Your task to perform on an android device: open app "NewsBreak: Local News & Alerts" Image 0: 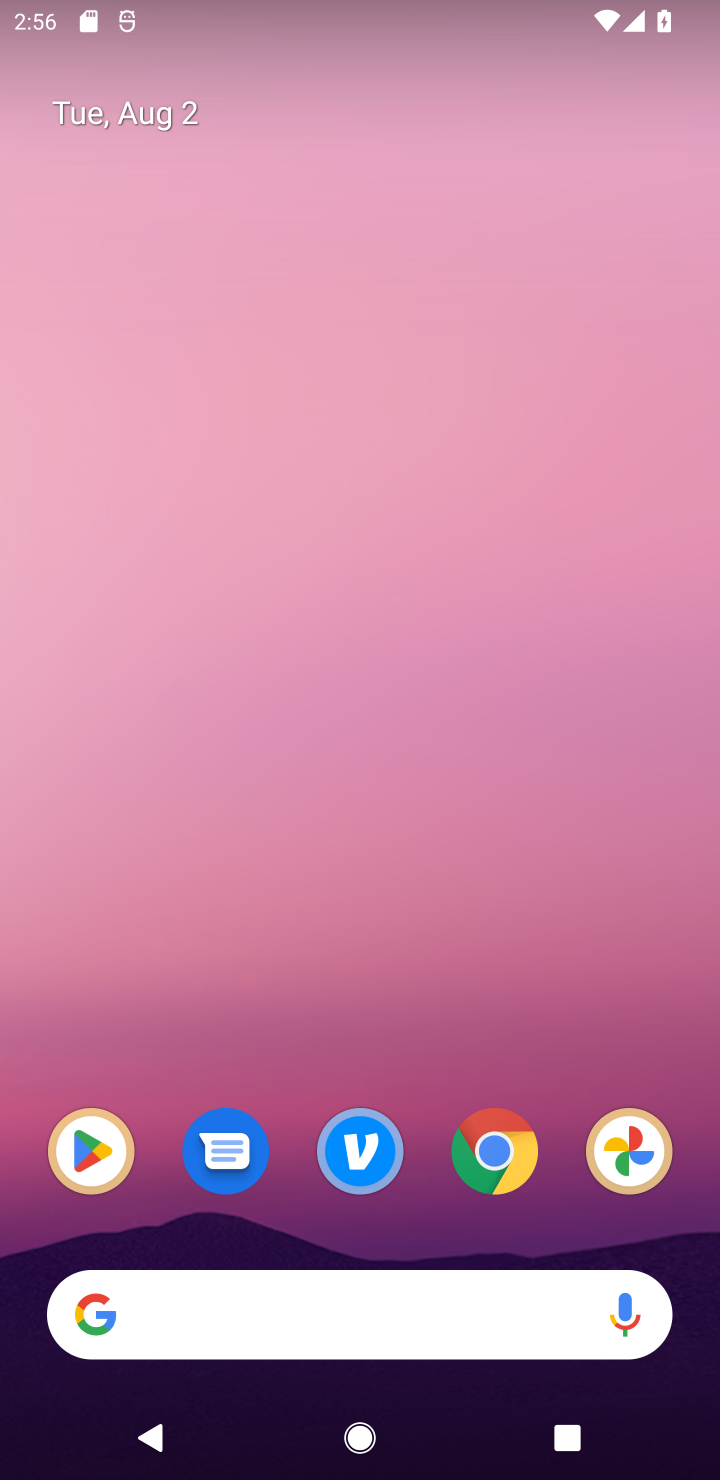
Step 0: drag from (562, 653) to (573, 205)
Your task to perform on an android device: open app "NewsBreak: Local News & Alerts" Image 1: 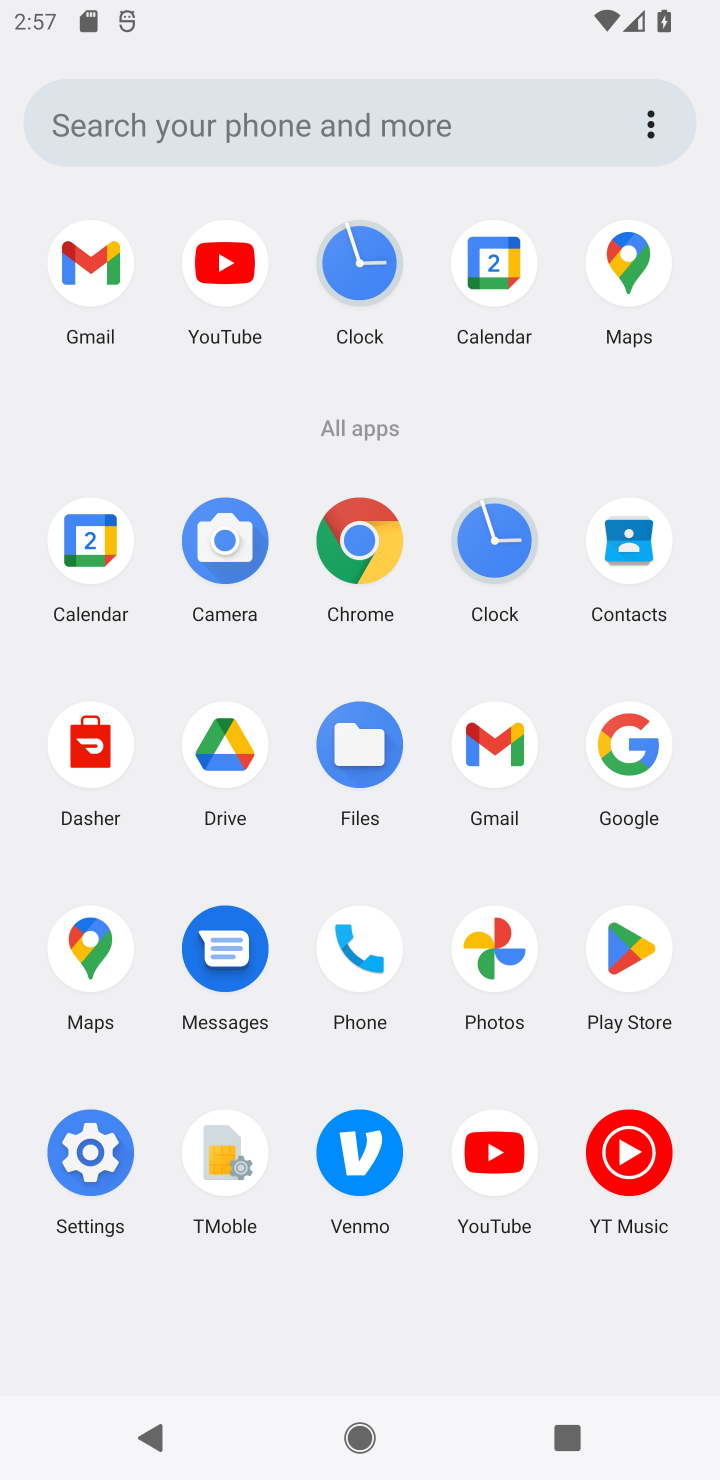
Step 1: click (635, 971)
Your task to perform on an android device: open app "NewsBreak: Local News & Alerts" Image 2: 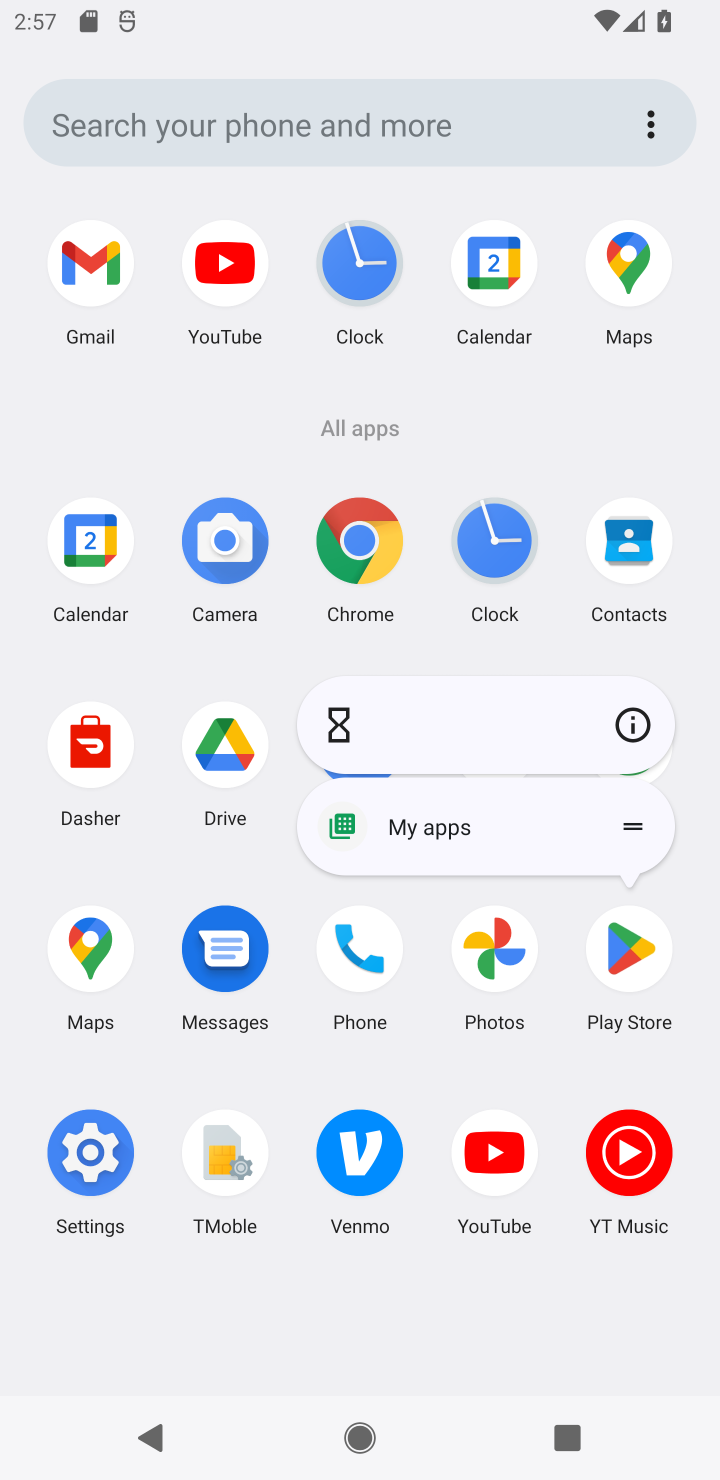
Step 2: click (626, 974)
Your task to perform on an android device: open app "NewsBreak: Local News & Alerts" Image 3: 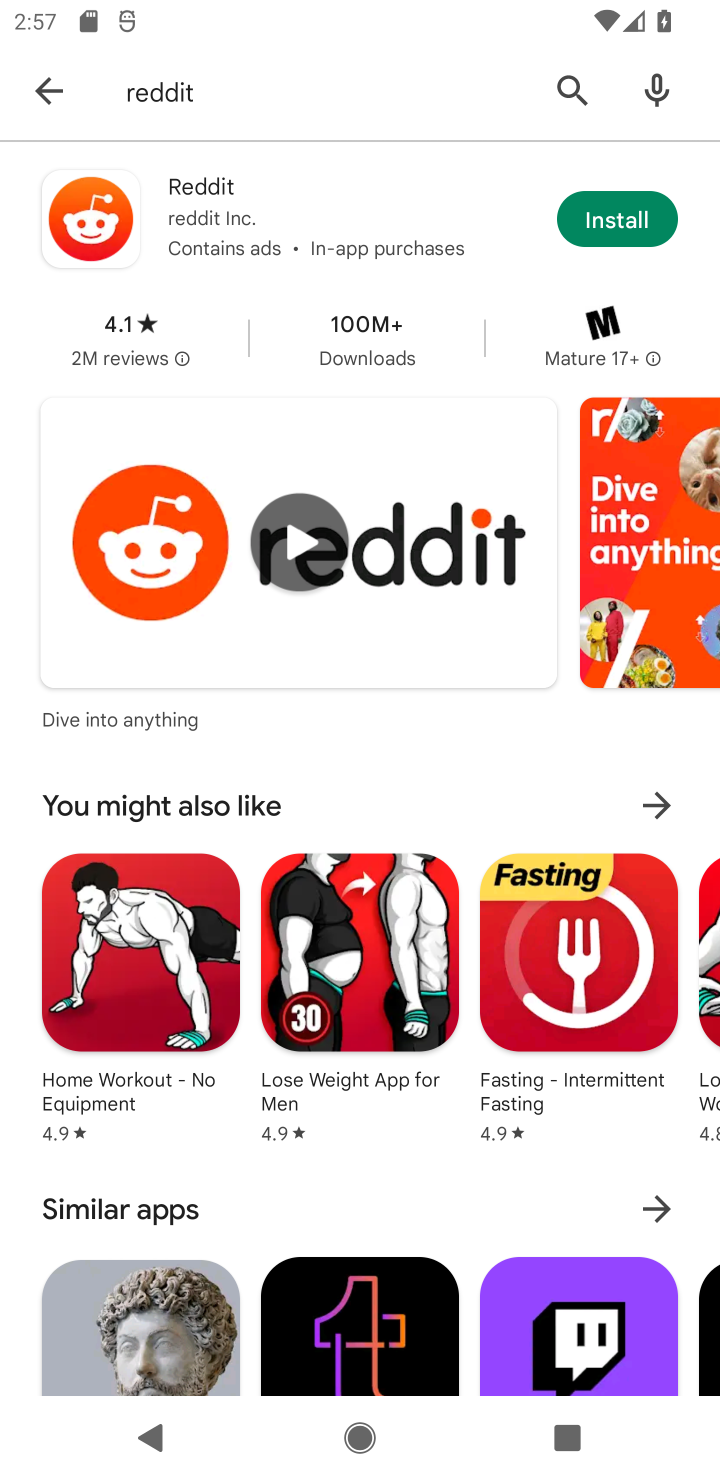
Step 3: click (50, 107)
Your task to perform on an android device: open app "NewsBreak: Local News & Alerts" Image 4: 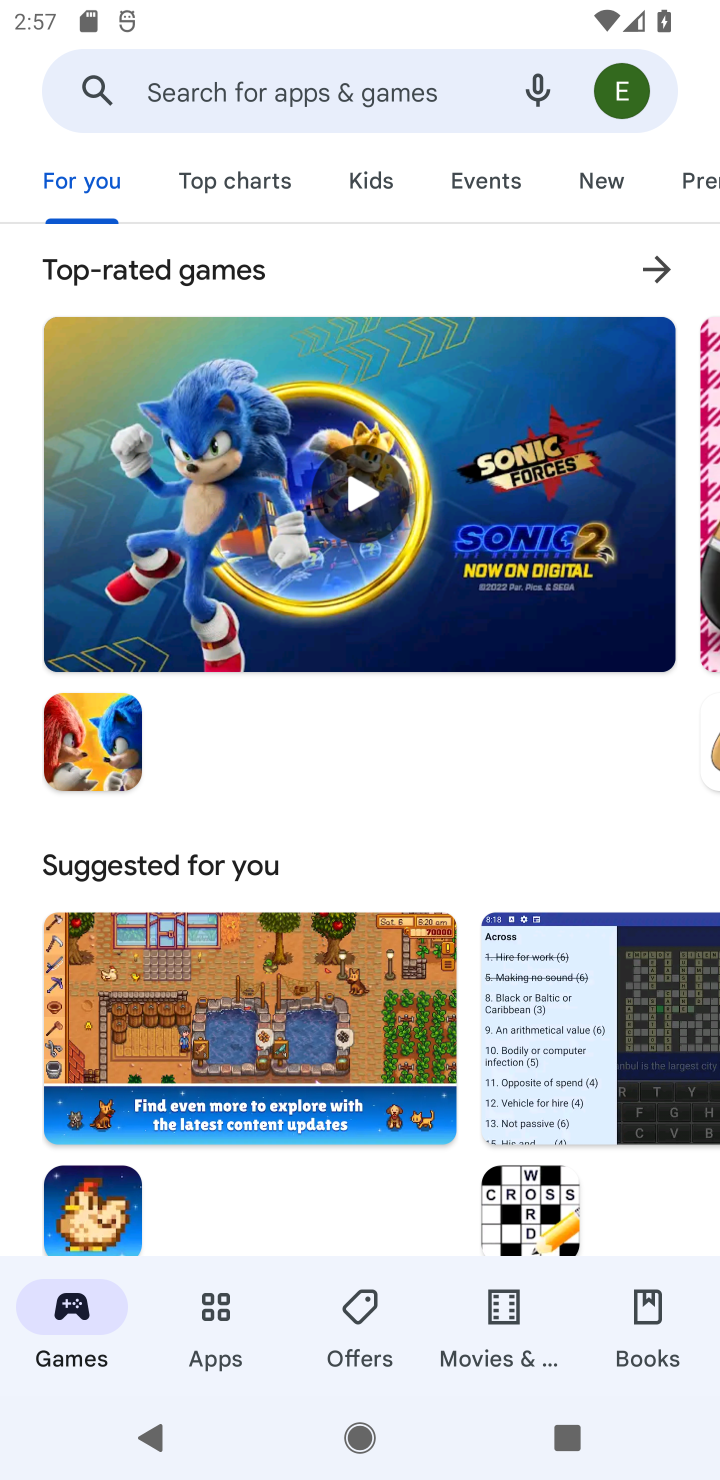
Step 4: click (224, 96)
Your task to perform on an android device: open app "NewsBreak: Local News & Alerts" Image 5: 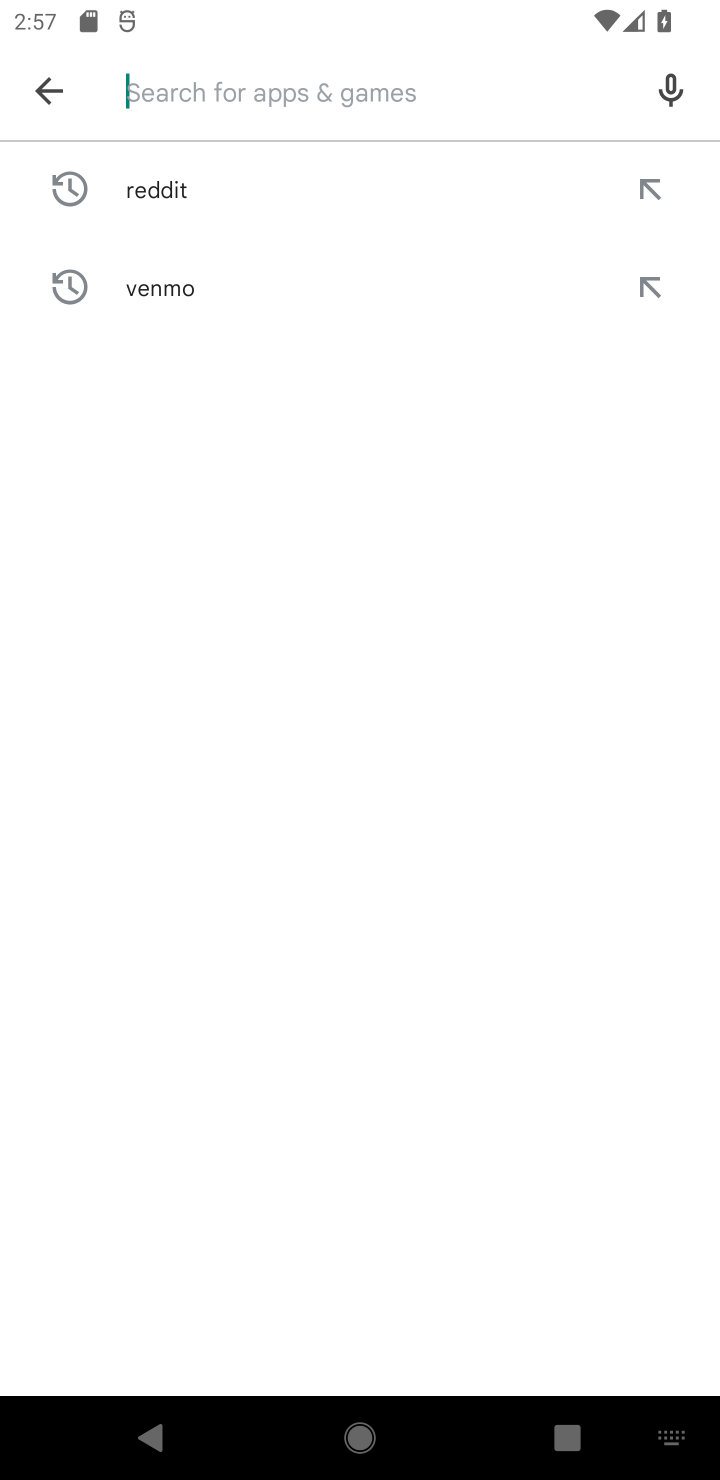
Step 5: type "NewsBreak: Local News & Alerts"
Your task to perform on an android device: open app "NewsBreak: Local News & Alerts" Image 6: 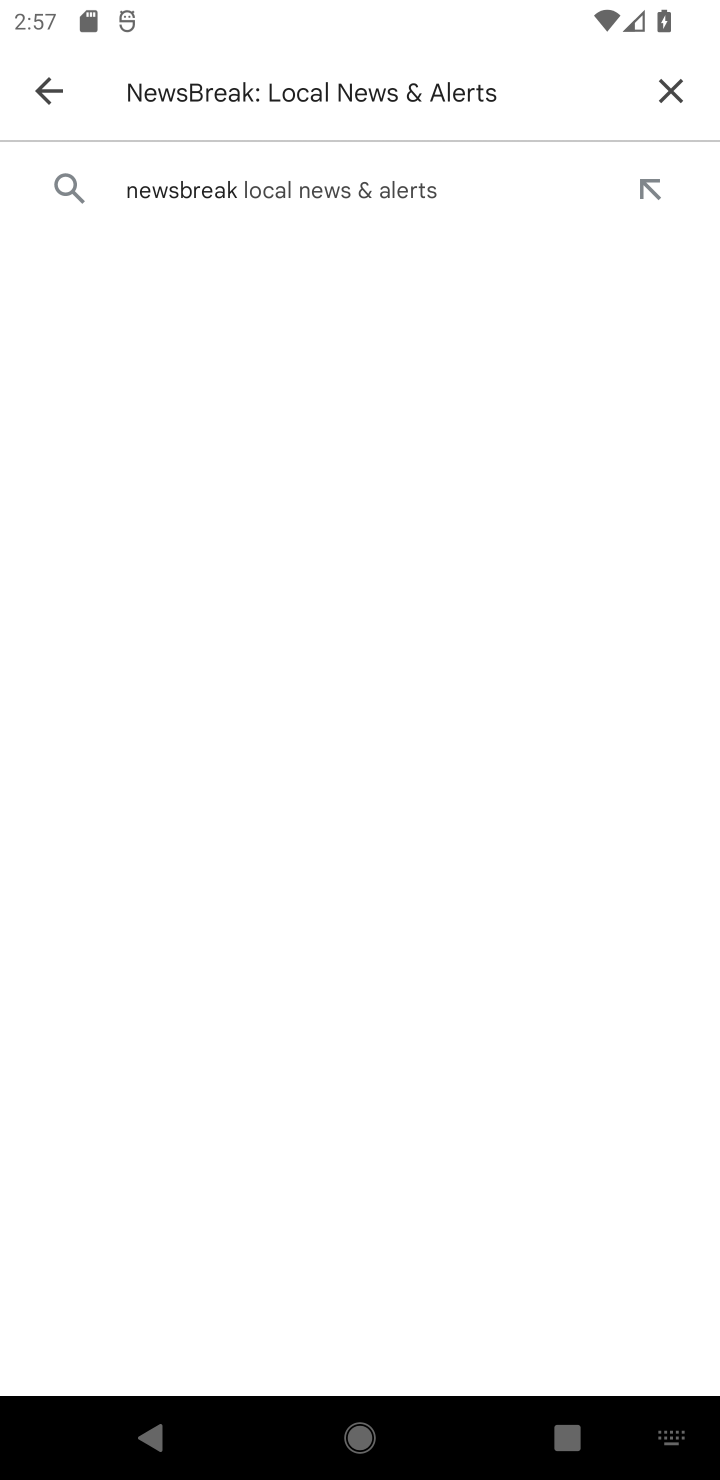
Step 6: click (317, 205)
Your task to perform on an android device: open app "NewsBreak: Local News & Alerts" Image 7: 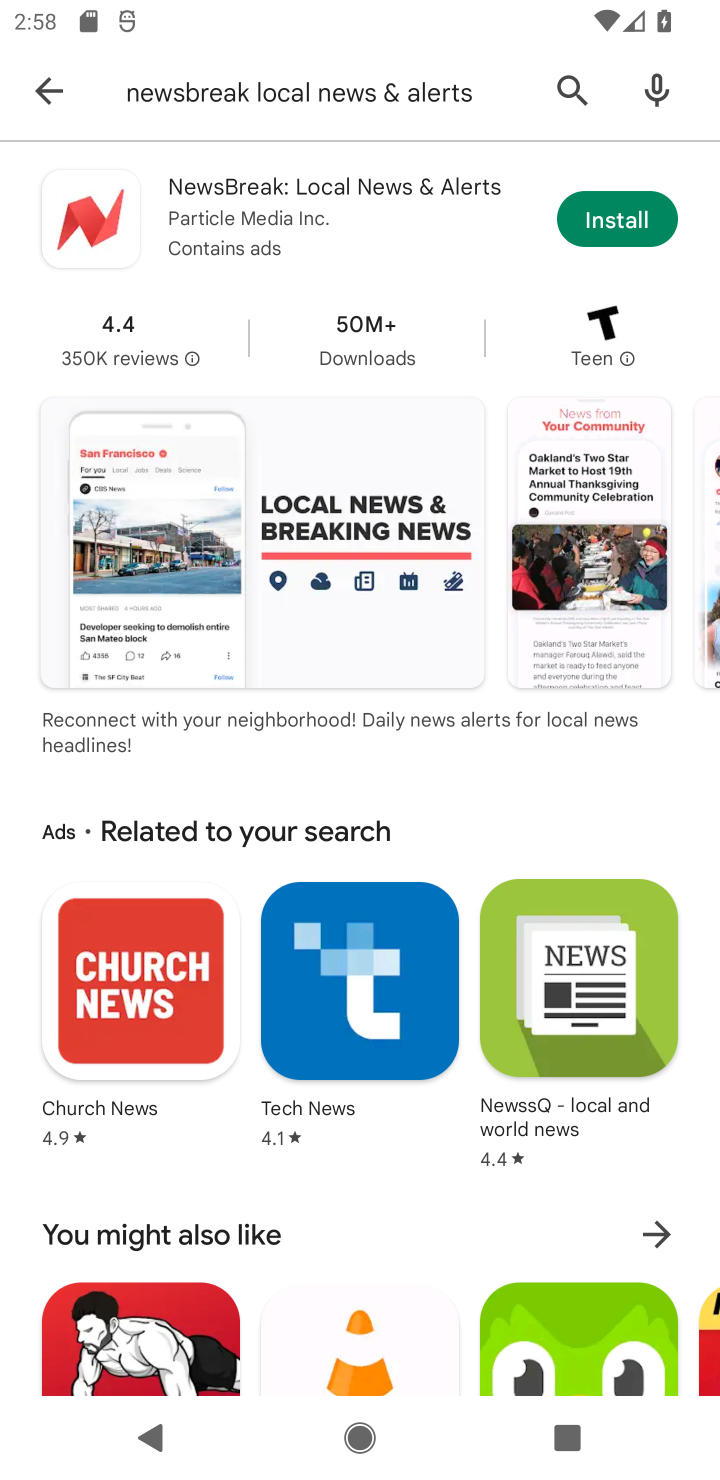
Step 7: task complete